Your task to perform on an android device: Do I have any events this weekend? Image 0: 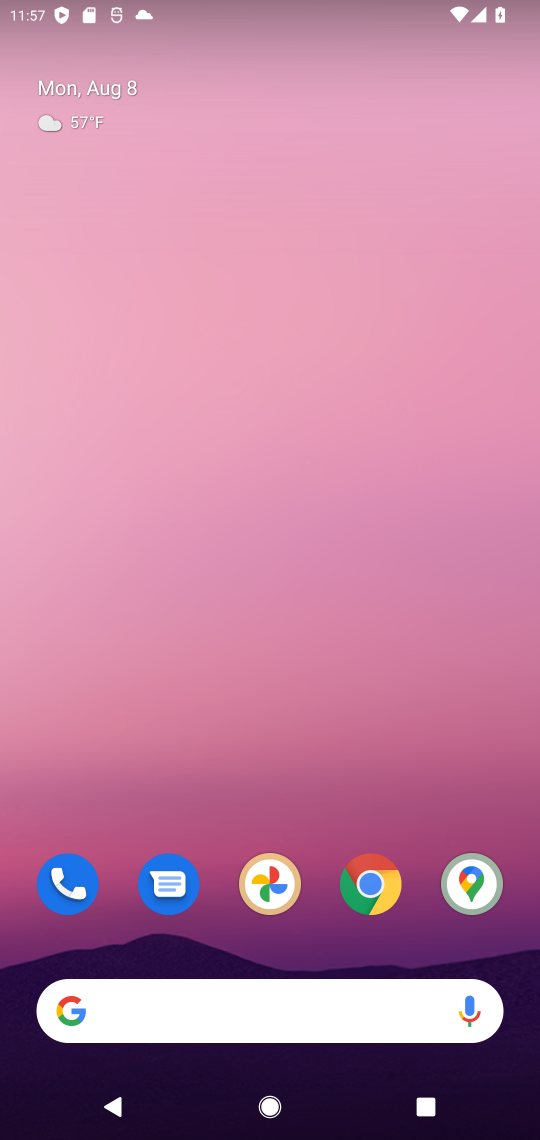
Step 0: drag from (359, 1070) to (412, 244)
Your task to perform on an android device: Do I have any events this weekend? Image 1: 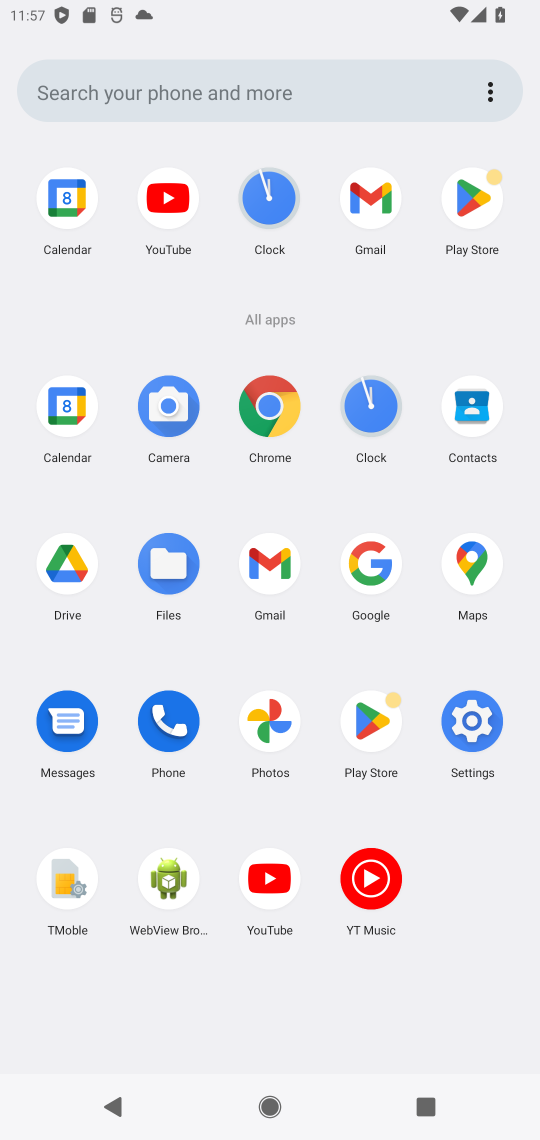
Step 1: click (87, 200)
Your task to perform on an android device: Do I have any events this weekend? Image 2: 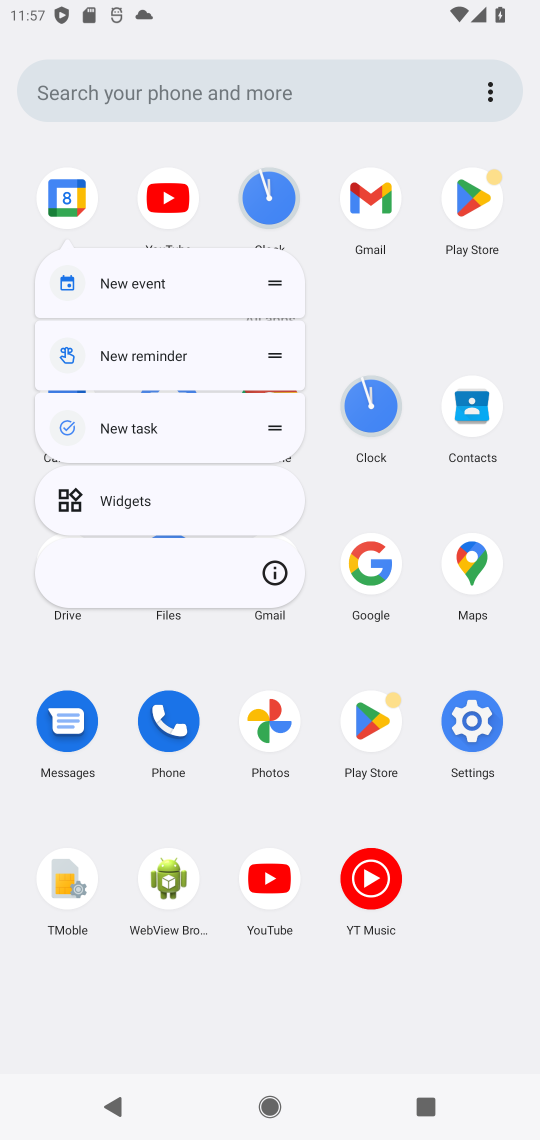
Step 2: click (87, 200)
Your task to perform on an android device: Do I have any events this weekend? Image 3: 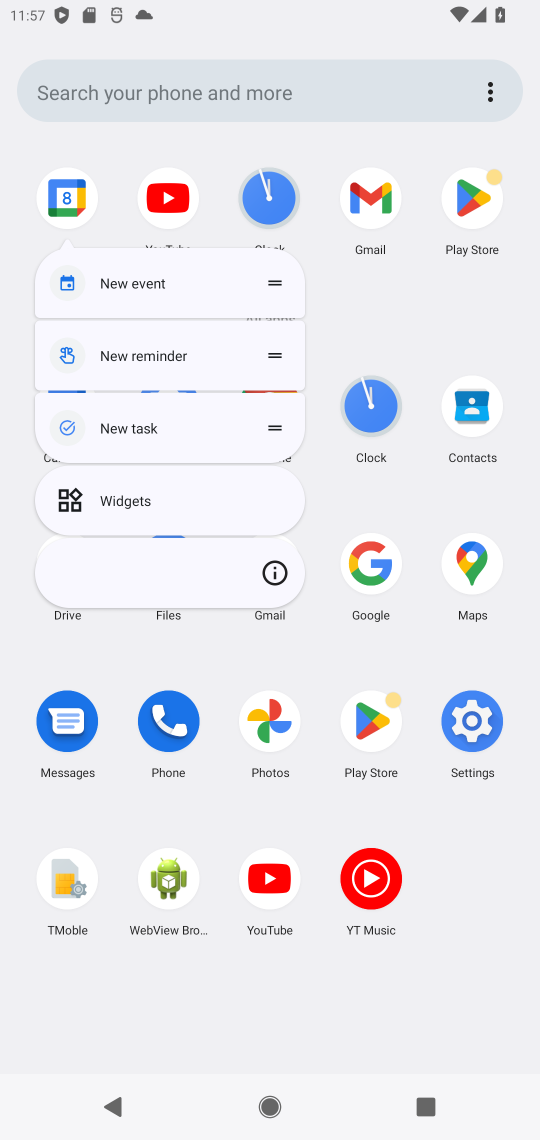
Step 3: click (75, 200)
Your task to perform on an android device: Do I have any events this weekend? Image 4: 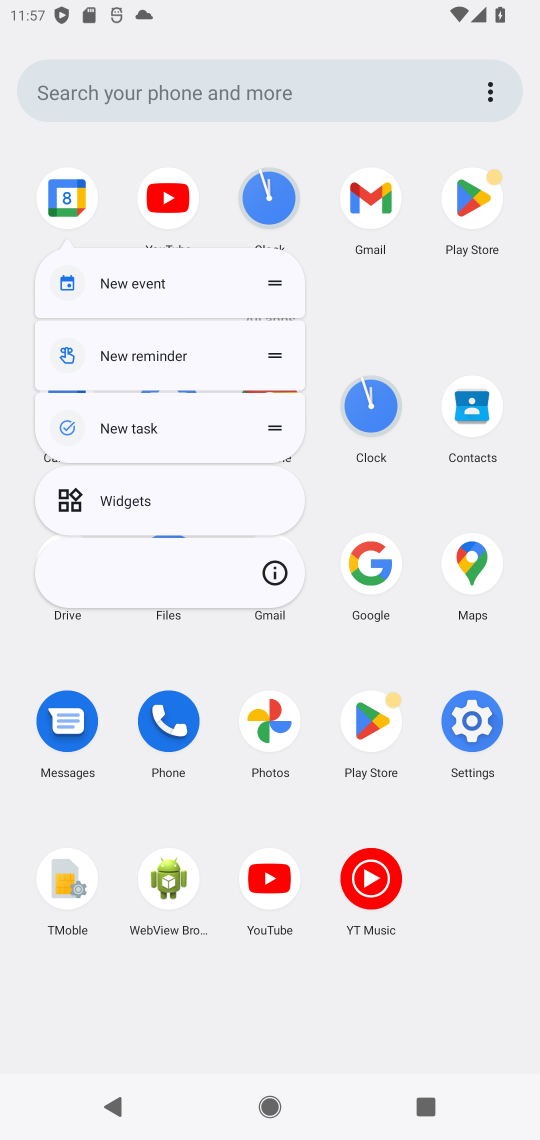
Step 4: click (75, 200)
Your task to perform on an android device: Do I have any events this weekend? Image 5: 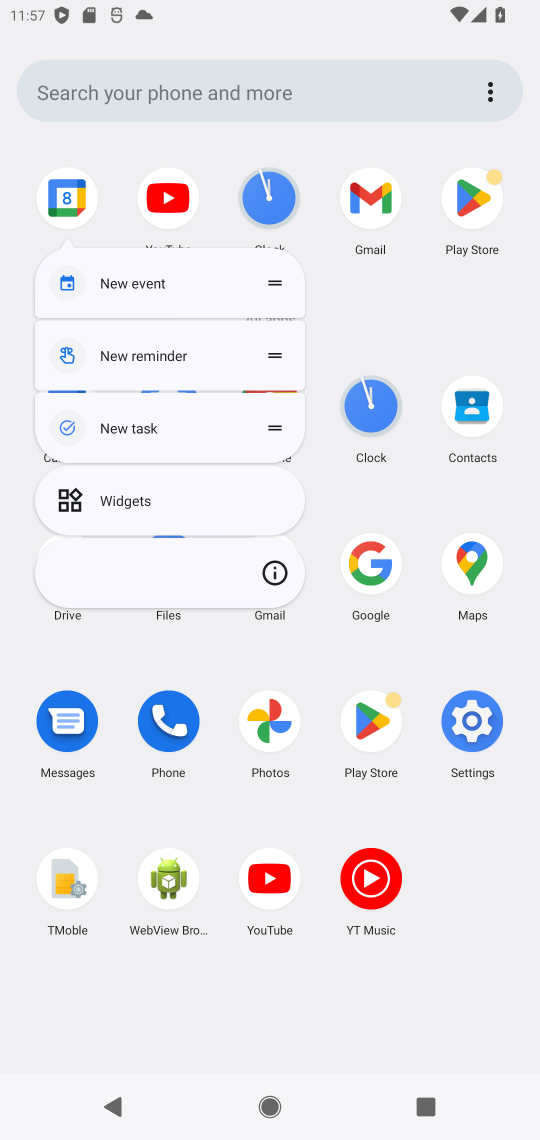
Step 5: click (75, 200)
Your task to perform on an android device: Do I have any events this weekend? Image 6: 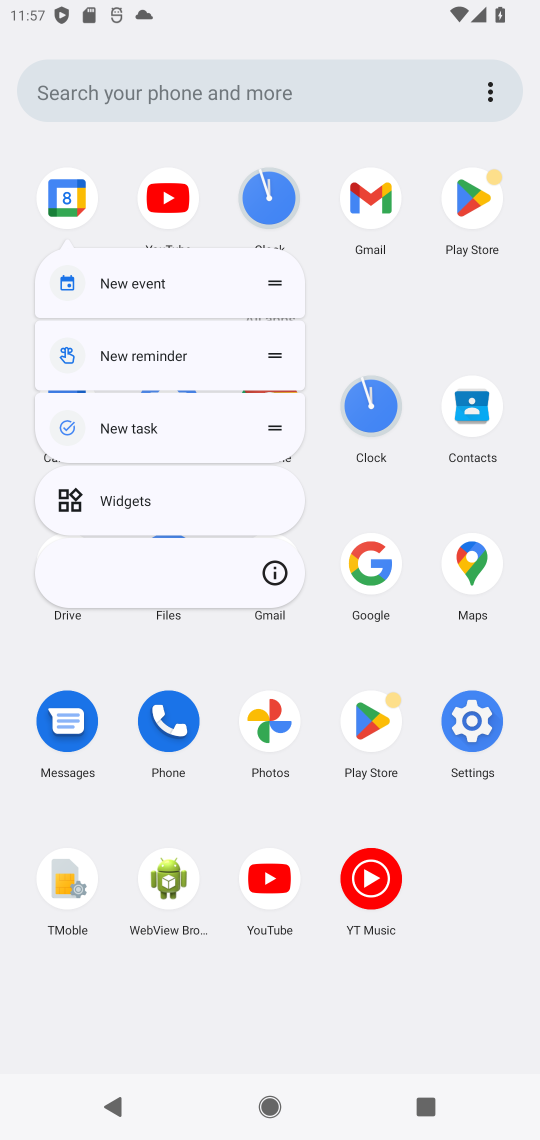
Step 6: click (70, 200)
Your task to perform on an android device: Do I have any events this weekend? Image 7: 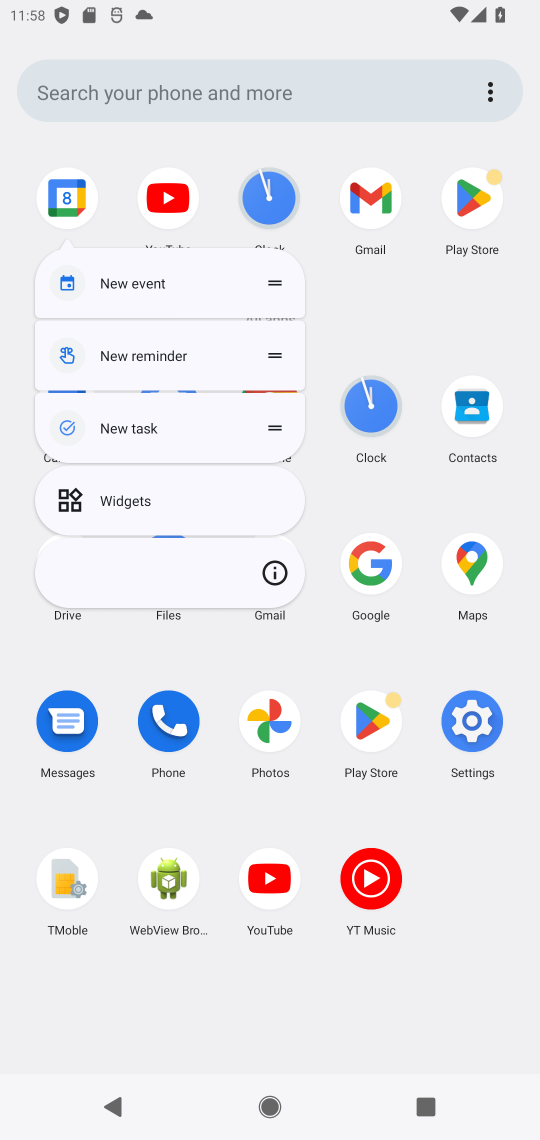
Step 7: click (70, 169)
Your task to perform on an android device: Do I have any events this weekend? Image 8: 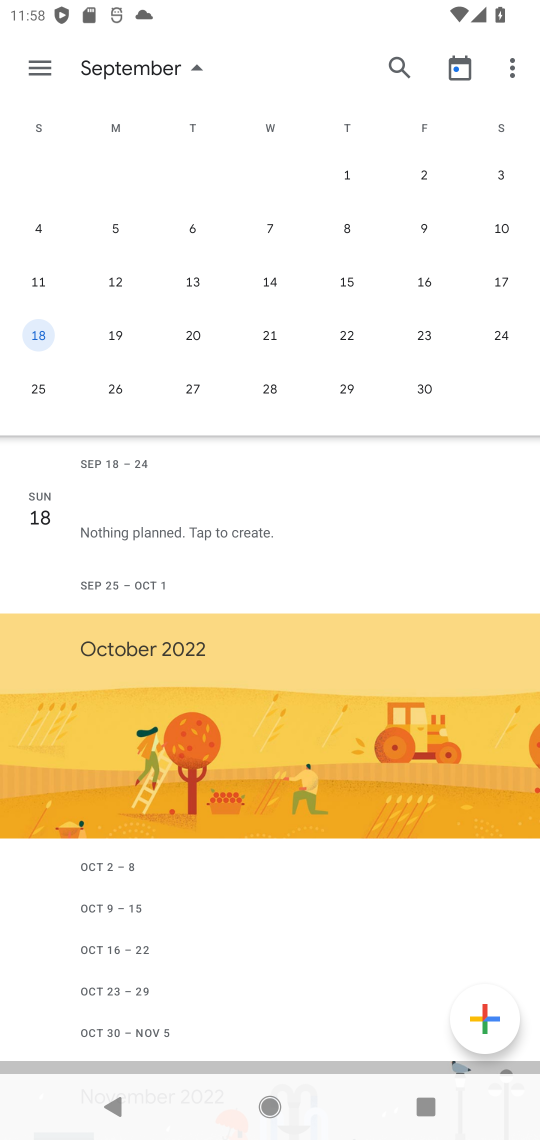
Step 8: click (32, 64)
Your task to perform on an android device: Do I have any events this weekend? Image 9: 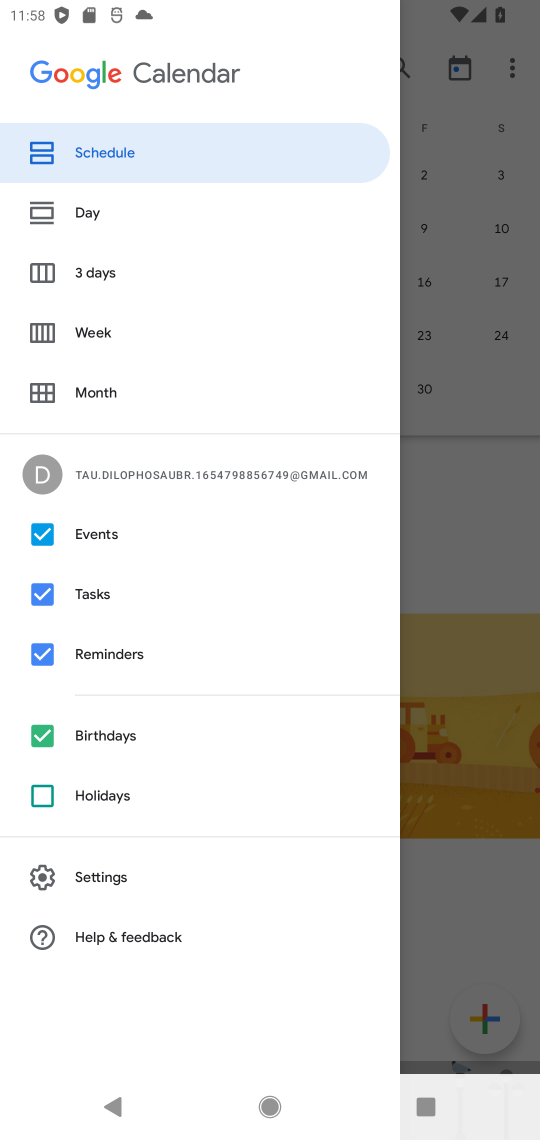
Step 9: click (113, 158)
Your task to perform on an android device: Do I have any events this weekend? Image 10: 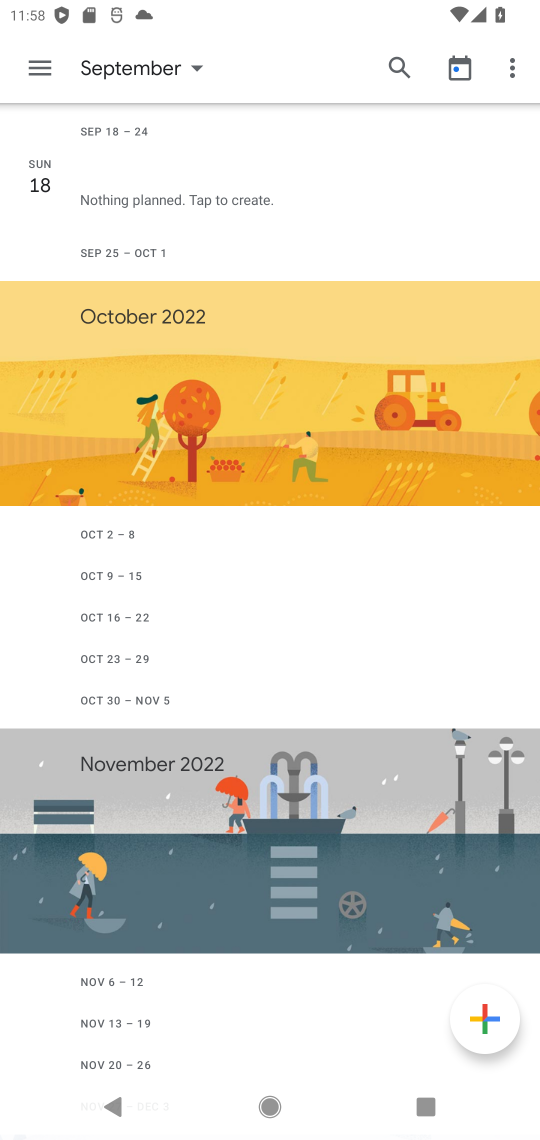
Step 10: click (168, 57)
Your task to perform on an android device: Do I have any events this weekend? Image 11: 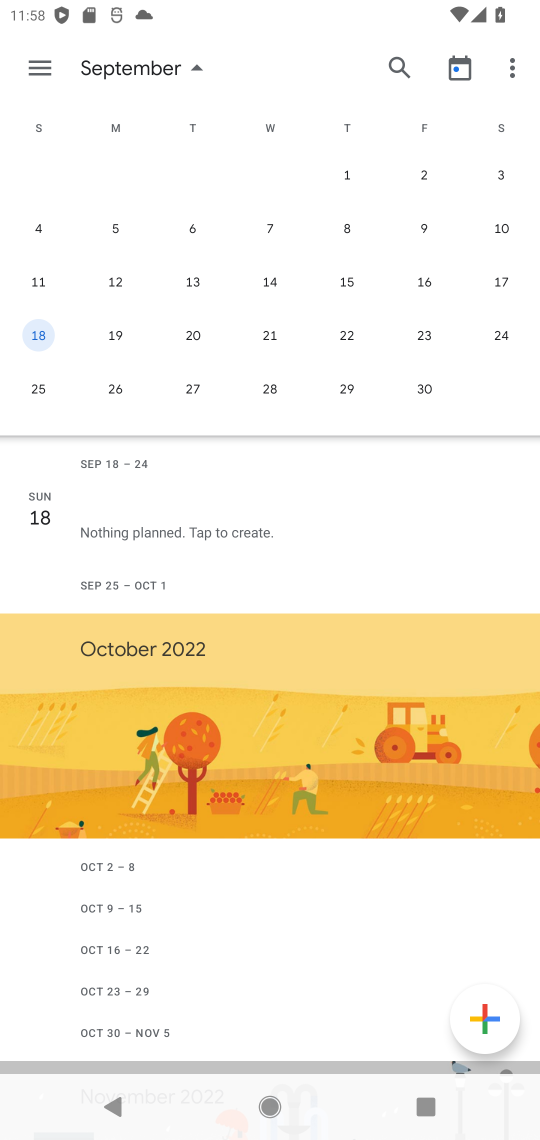
Step 11: task complete